Your task to perform on an android device: toggle notifications settings in the gmail app Image 0: 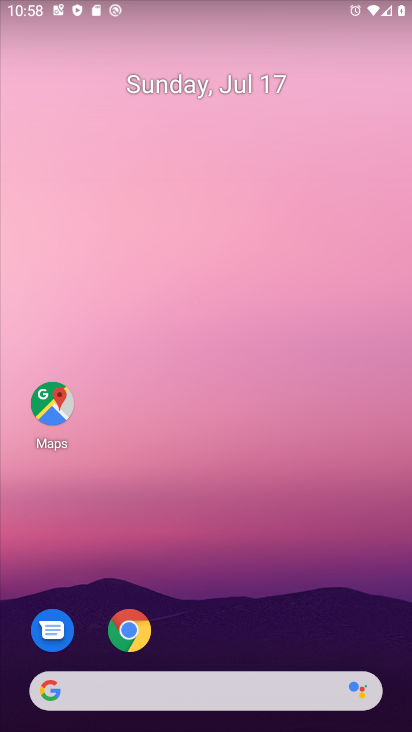
Step 0: drag from (339, 612) to (354, 120)
Your task to perform on an android device: toggle notifications settings in the gmail app Image 1: 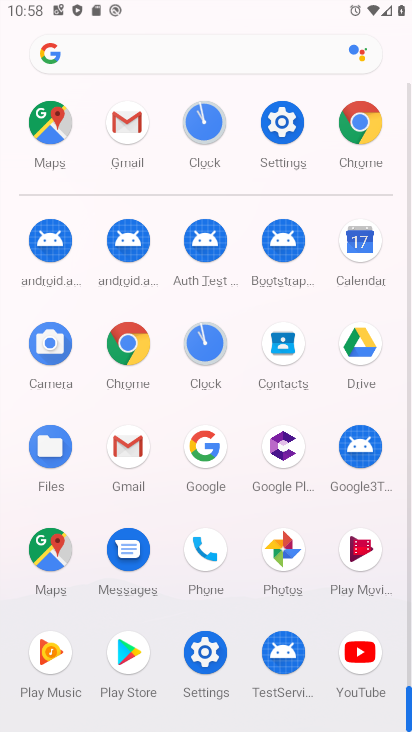
Step 1: click (131, 449)
Your task to perform on an android device: toggle notifications settings in the gmail app Image 2: 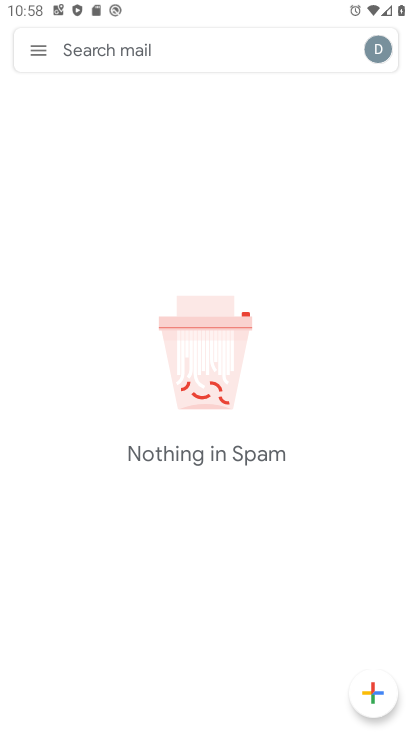
Step 2: click (36, 52)
Your task to perform on an android device: toggle notifications settings in the gmail app Image 3: 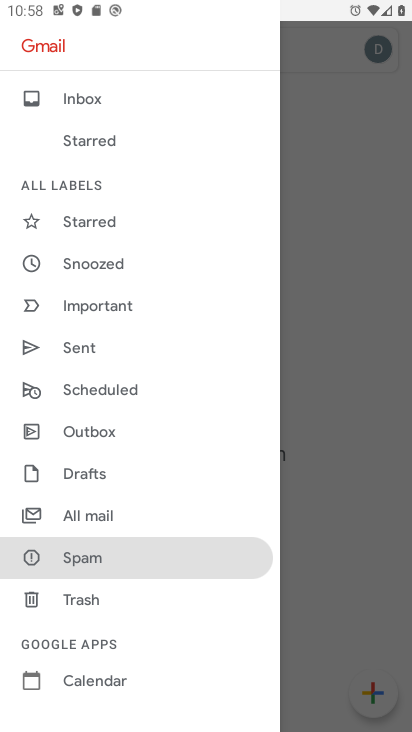
Step 3: drag from (205, 395) to (215, 312)
Your task to perform on an android device: toggle notifications settings in the gmail app Image 4: 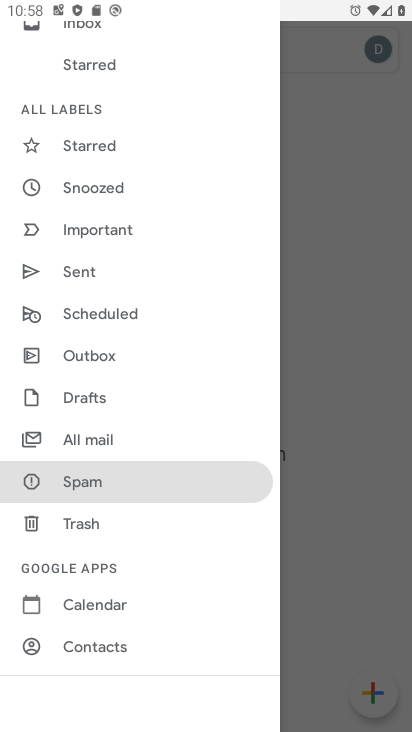
Step 4: drag from (215, 424) to (222, 363)
Your task to perform on an android device: toggle notifications settings in the gmail app Image 5: 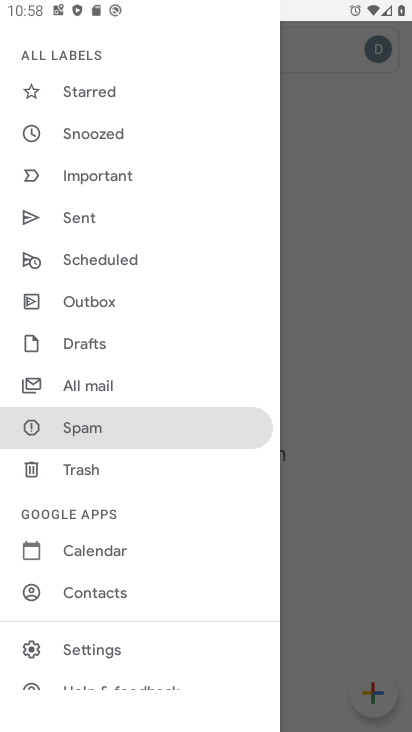
Step 5: drag from (212, 483) to (216, 340)
Your task to perform on an android device: toggle notifications settings in the gmail app Image 6: 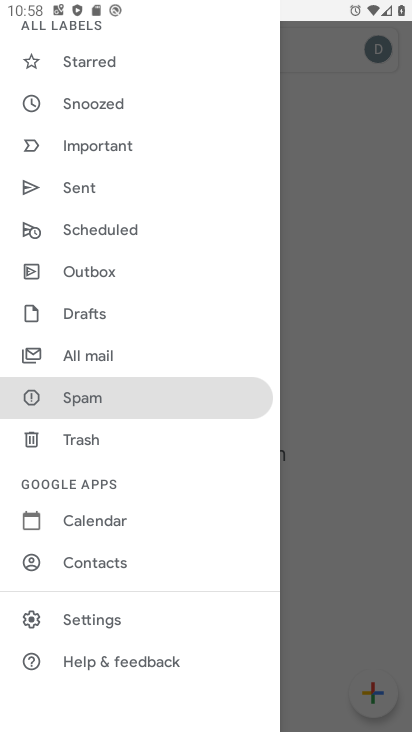
Step 6: click (141, 625)
Your task to perform on an android device: toggle notifications settings in the gmail app Image 7: 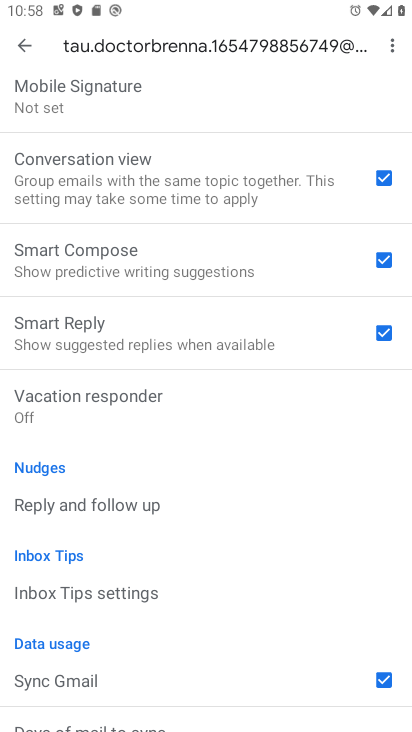
Step 7: drag from (271, 579) to (285, 502)
Your task to perform on an android device: toggle notifications settings in the gmail app Image 8: 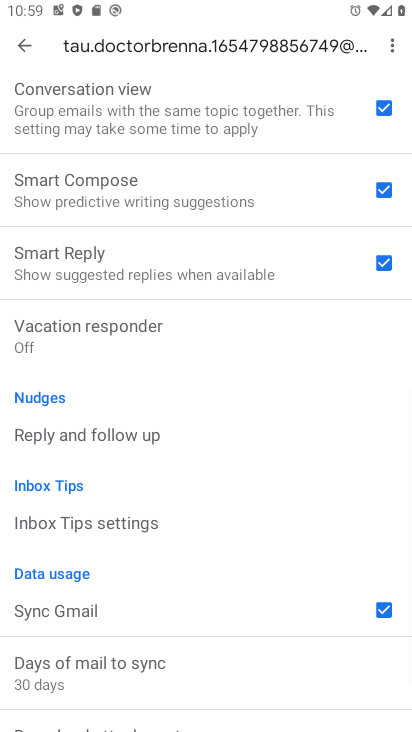
Step 8: drag from (287, 593) to (295, 493)
Your task to perform on an android device: toggle notifications settings in the gmail app Image 9: 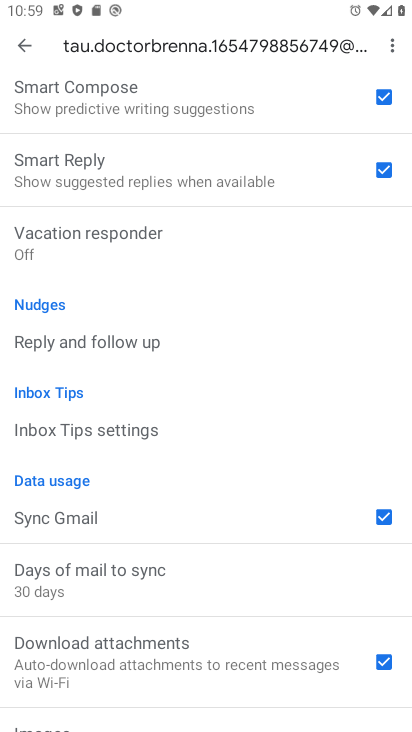
Step 9: drag from (283, 593) to (280, 402)
Your task to perform on an android device: toggle notifications settings in the gmail app Image 10: 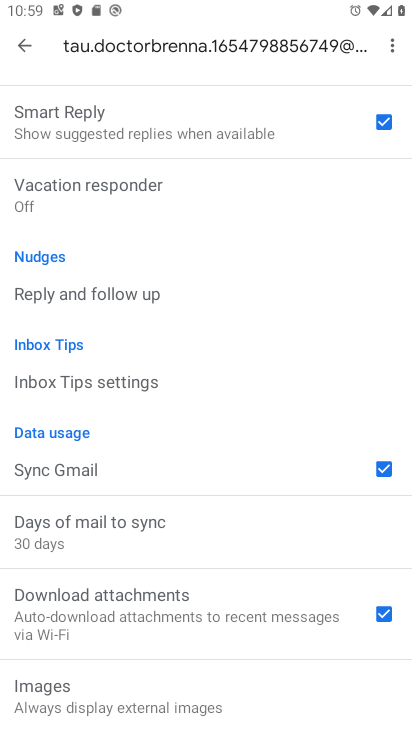
Step 10: drag from (277, 285) to (280, 421)
Your task to perform on an android device: toggle notifications settings in the gmail app Image 11: 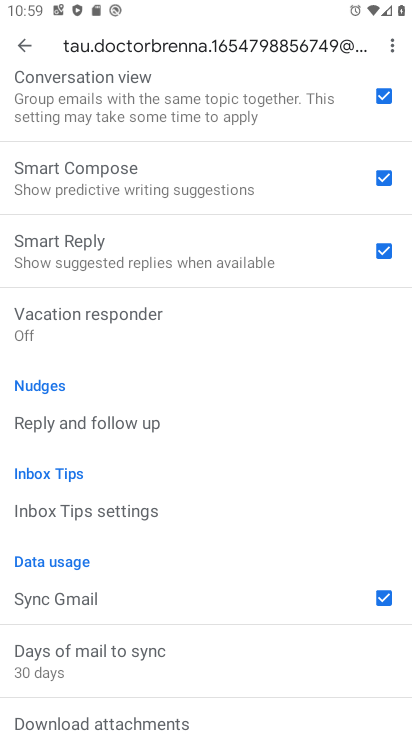
Step 11: drag from (298, 209) to (298, 368)
Your task to perform on an android device: toggle notifications settings in the gmail app Image 12: 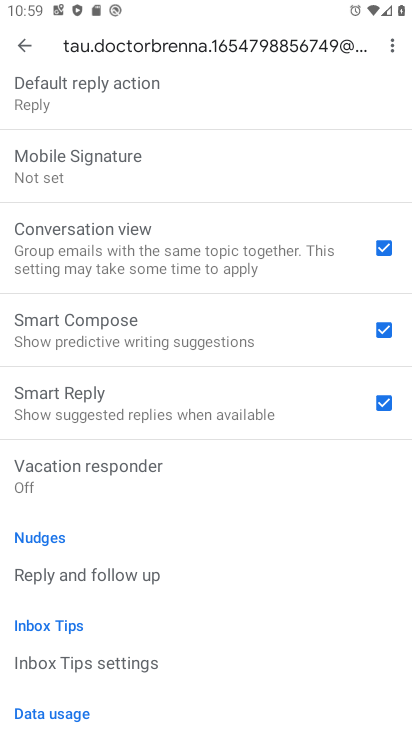
Step 12: drag from (288, 159) to (297, 325)
Your task to perform on an android device: toggle notifications settings in the gmail app Image 13: 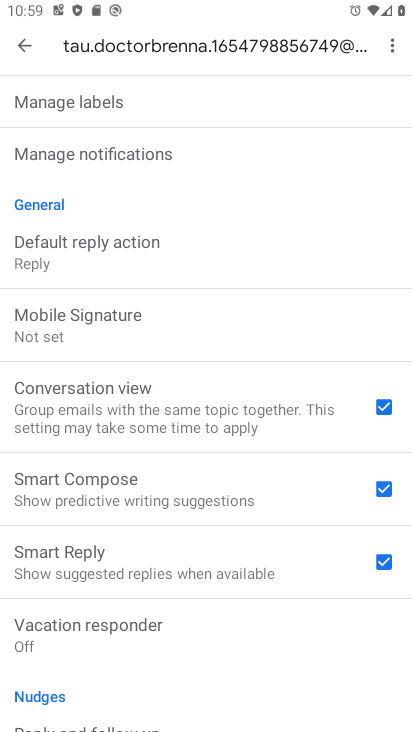
Step 13: drag from (297, 183) to (299, 361)
Your task to perform on an android device: toggle notifications settings in the gmail app Image 14: 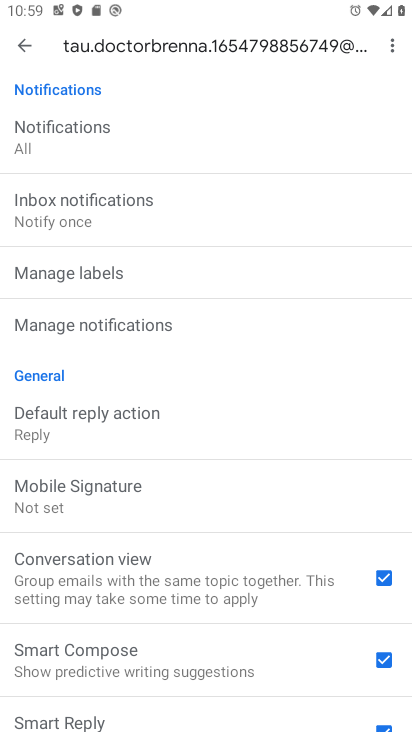
Step 14: drag from (292, 158) to (291, 363)
Your task to perform on an android device: toggle notifications settings in the gmail app Image 15: 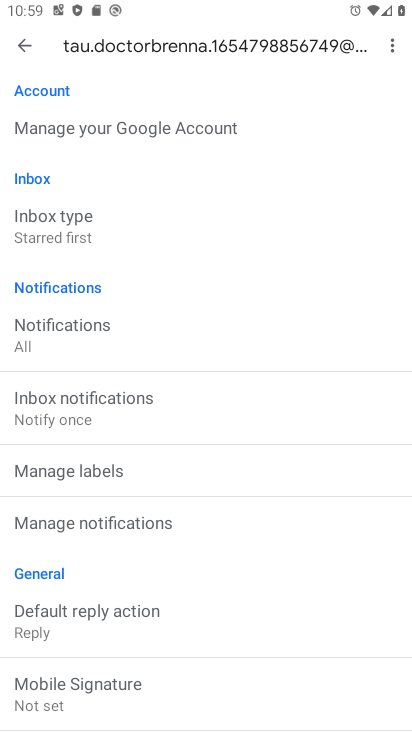
Step 15: drag from (292, 208) to (295, 395)
Your task to perform on an android device: toggle notifications settings in the gmail app Image 16: 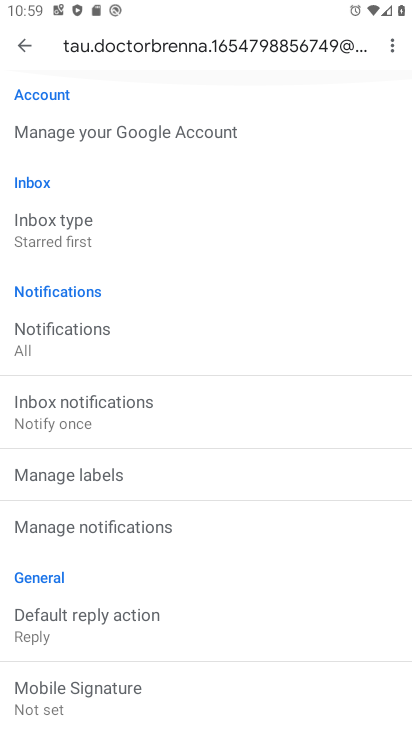
Step 16: drag from (292, 433) to (301, 332)
Your task to perform on an android device: toggle notifications settings in the gmail app Image 17: 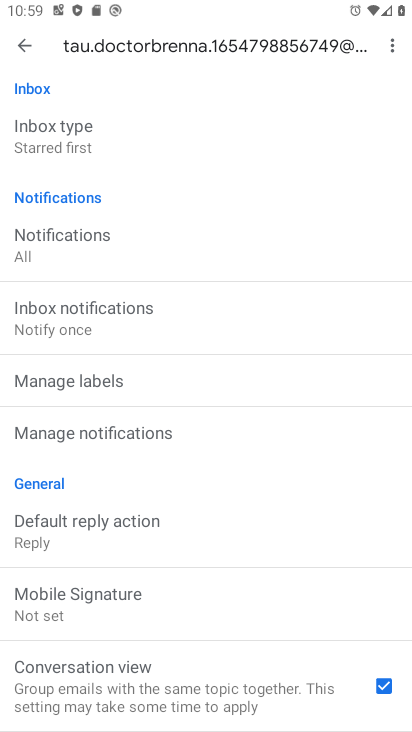
Step 17: drag from (296, 460) to (313, 305)
Your task to perform on an android device: toggle notifications settings in the gmail app Image 18: 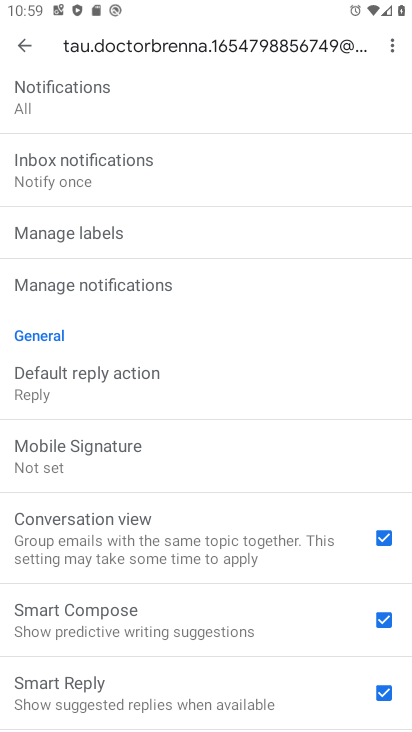
Step 18: click (199, 280)
Your task to perform on an android device: toggle notifications settings in the gmail app Image 19: 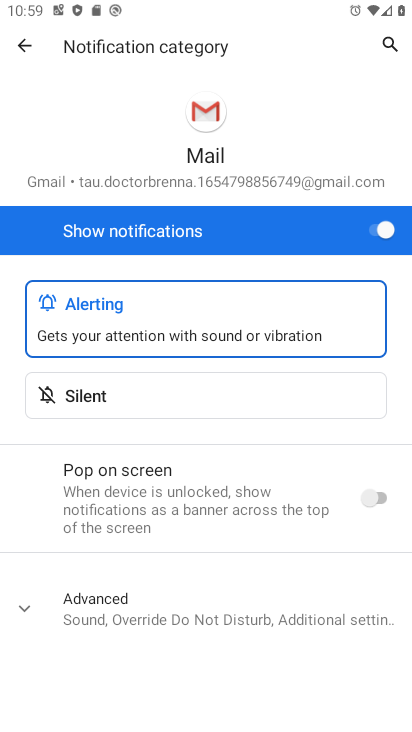
Step 19: click (383, 232)
Your task to perform on an android device: toggle notifications settings in the gmail app Image 20: 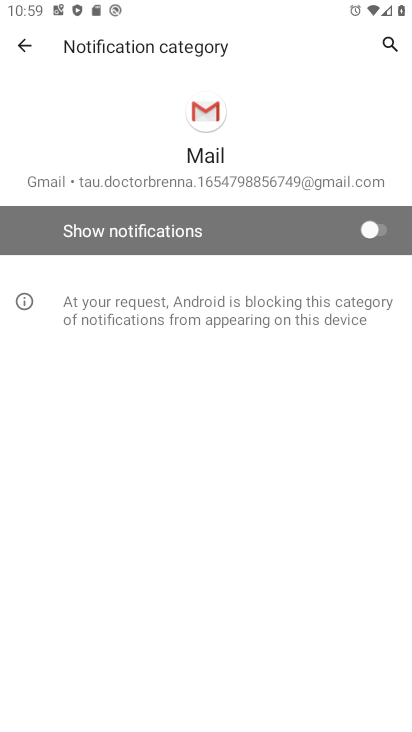
Step 20: task complete